Your task to perform on an android device: Find coffee shops on Maps Image 0: 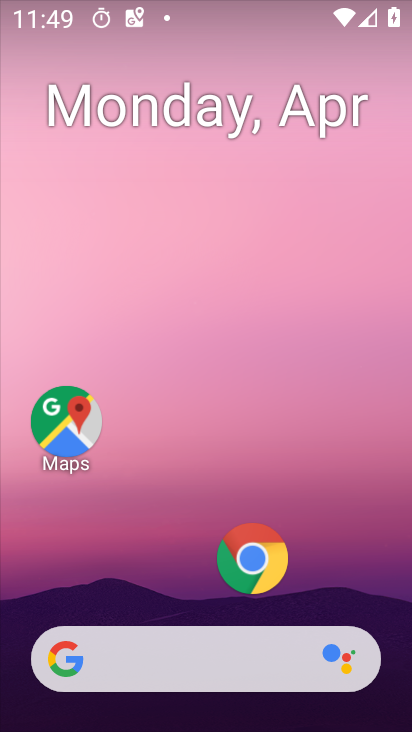
Step 0: click (66, 414)
Your task to perform on an android device: Find coffee shops on Maps Image 1: 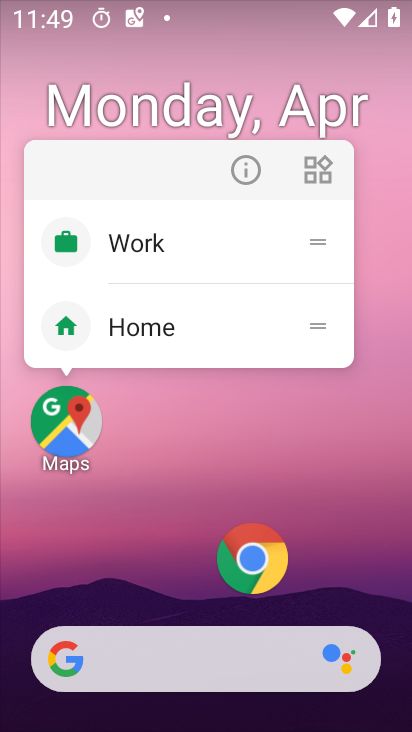
Step 1: click (239, 177)
Your task to perform on an android device: Find coffee shops on Maps Image 2: 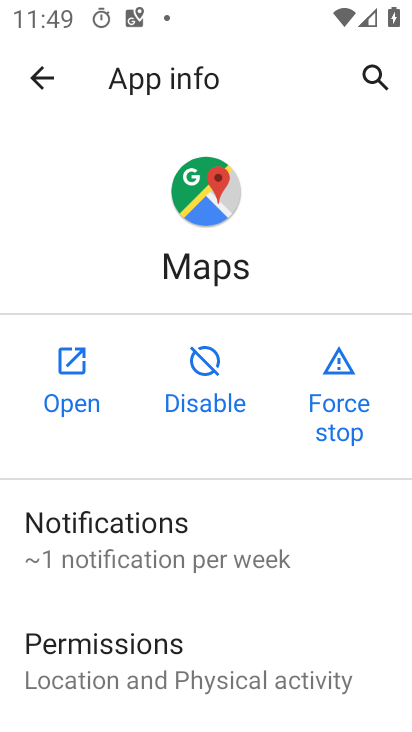
Step 2: click (70, 392)
Your task to perform on an android device: Find coffee shops on Maps Image 3: 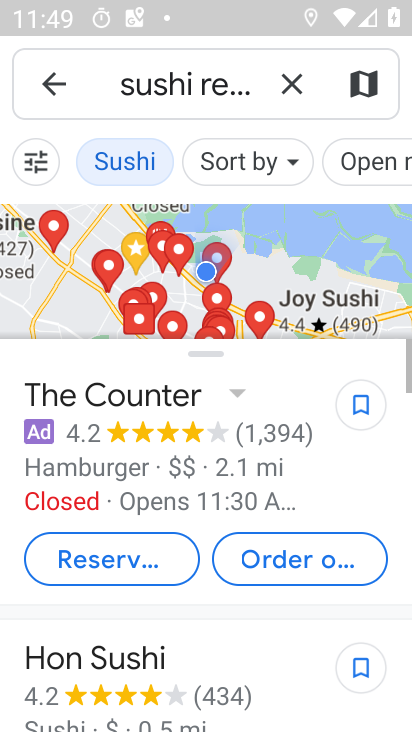
Step 3: click (280, 91)
Your task to perform on an android device: Find coffee shops on Maps Image 4: 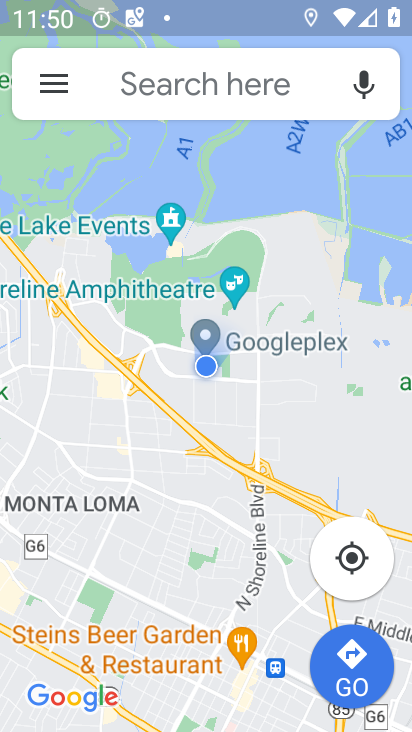
Step 4: type "coffee shops"
Your task to perform on an android device: Find coffee shops on Maps Image 5: 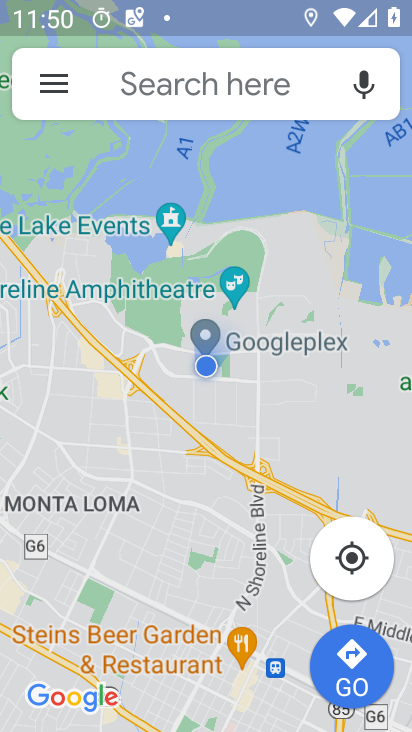
Step 5: click (188, 91)
Your task to perform on an android device: Find coffee shops on Maps Image 6: 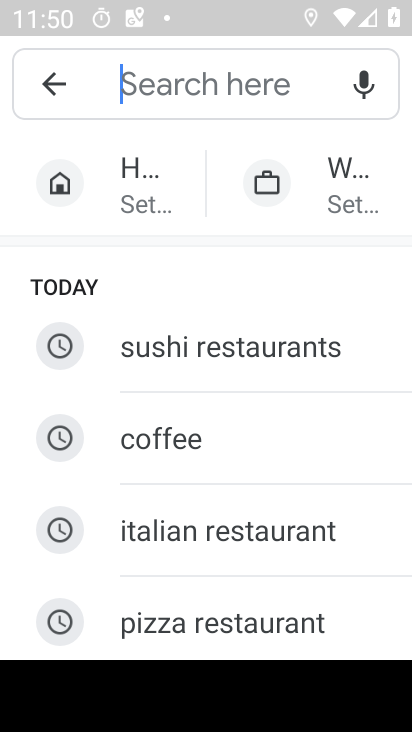
Step 6: type "coffee shops"
Your task to perform on an android device: Find coffee shops on Maps Image 7: 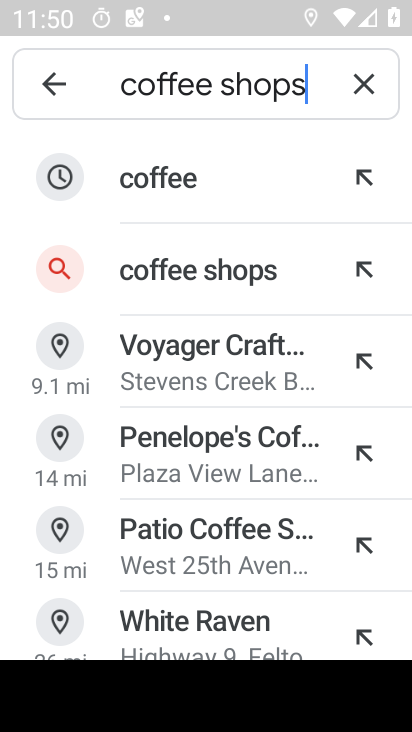
Step 7: click (216, 263)
Your task to perform on an android device: Find coffee shops on Maps Image 8: 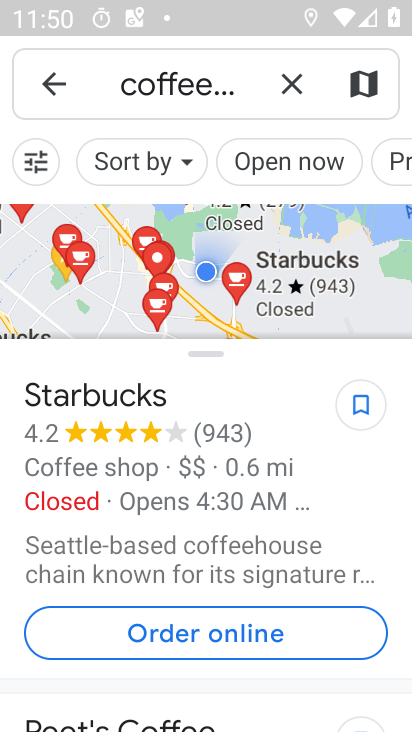
Step 8: task complete